Your task to perform on an android device: Empty the shopping cart on newegg.com. Search for usb-c to usb-b on newegg.com, select the first entry, and add it to the cart. Image 0: 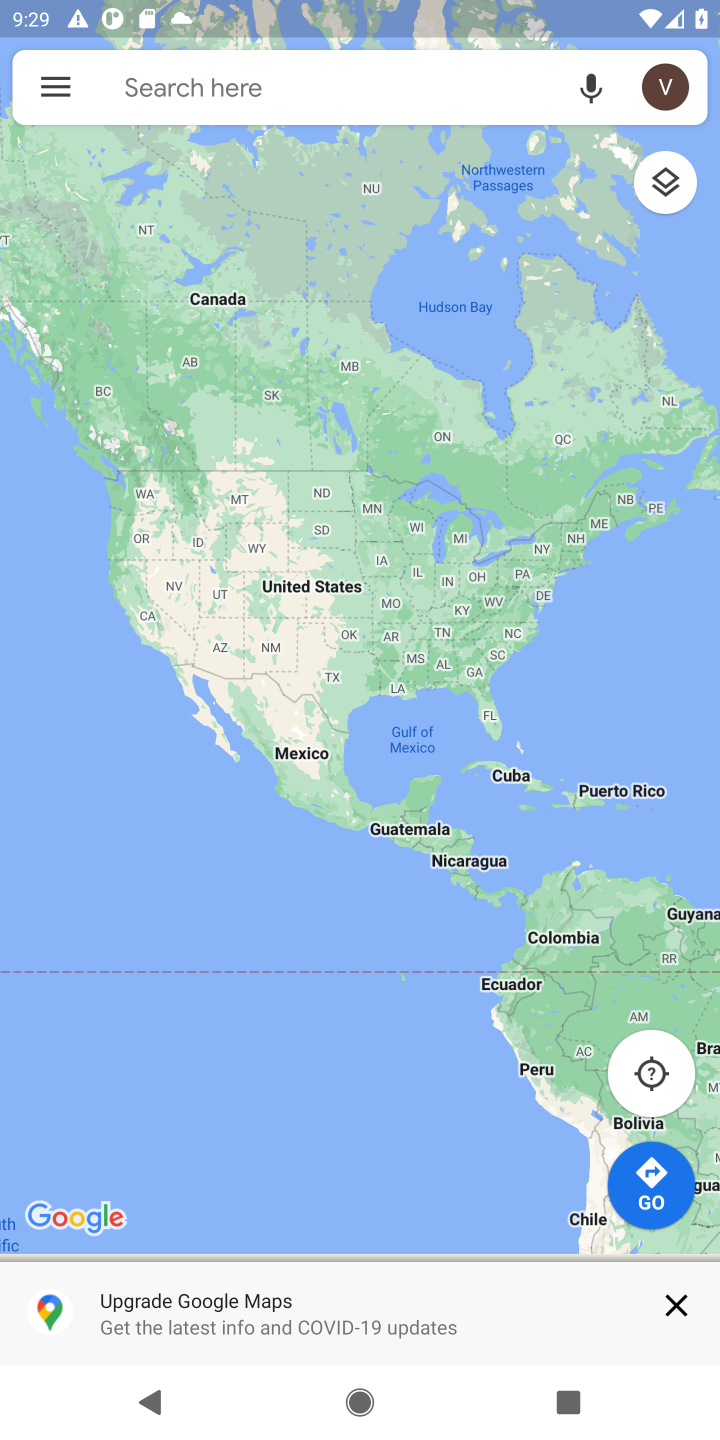
Step 0: press home button
Your task to perform on an android device: Empty the shopping cart on newegg.com. Search for usb-c to usb-b on newegg.com, select the first entry, and add it to the cart. Image 1: 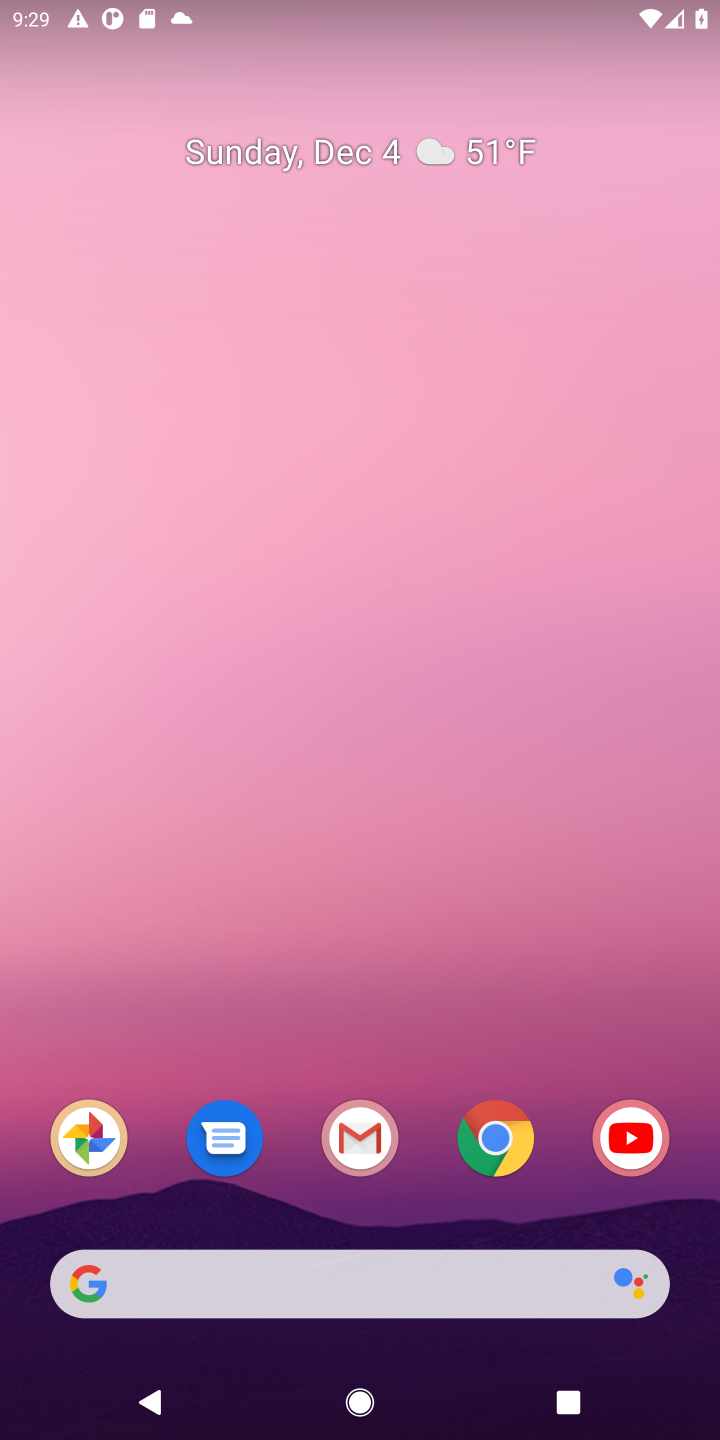
Step 1: click (484, 1138)
Your task to perform on an android device: Empty the shopping cart on newegg.com. Search for usb-c to usb-b on newegg.com, select the first entry, and add it to the cart. Image 2: 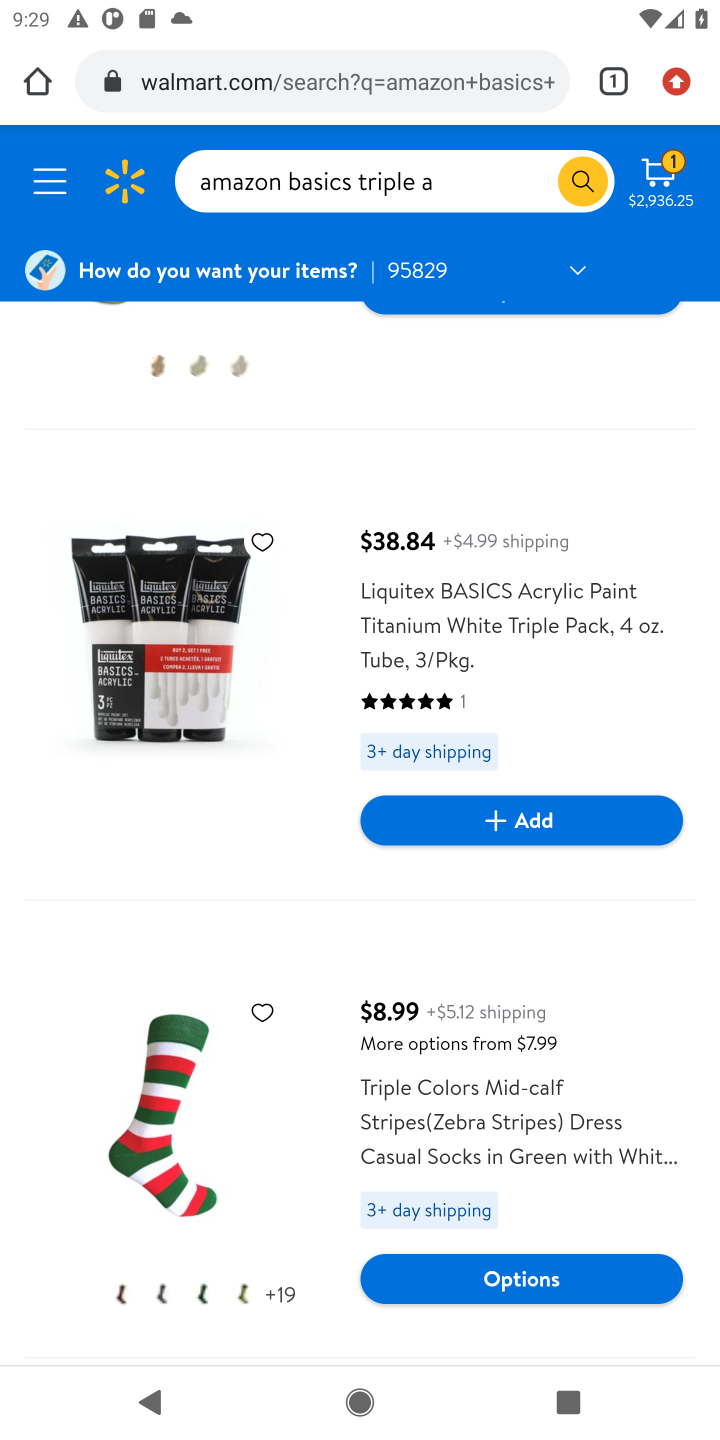
Step 2: click (376, 88)
Your task to perform on an android device: Empty the shopping cart on newegg.com. Search for usb-c to usb-b on newegg.com, select the first entry, and add it to the cart. Image 3: 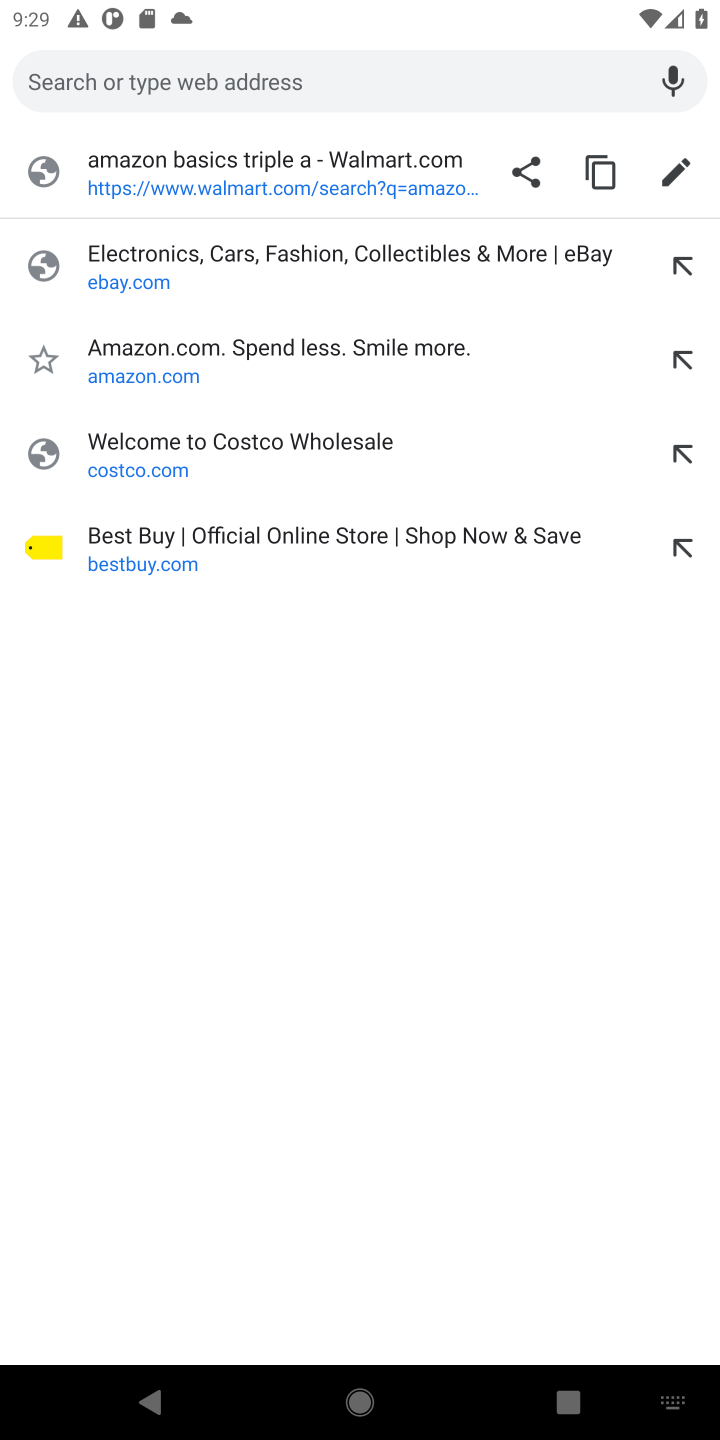
Step 3: type "newegg.com"
Your task to perform on an android device: Empty the shopping cart on newegg.com. Search for usb-c to usb-b on newegg.com, select the first entry, and add it to the cart. Image 4: 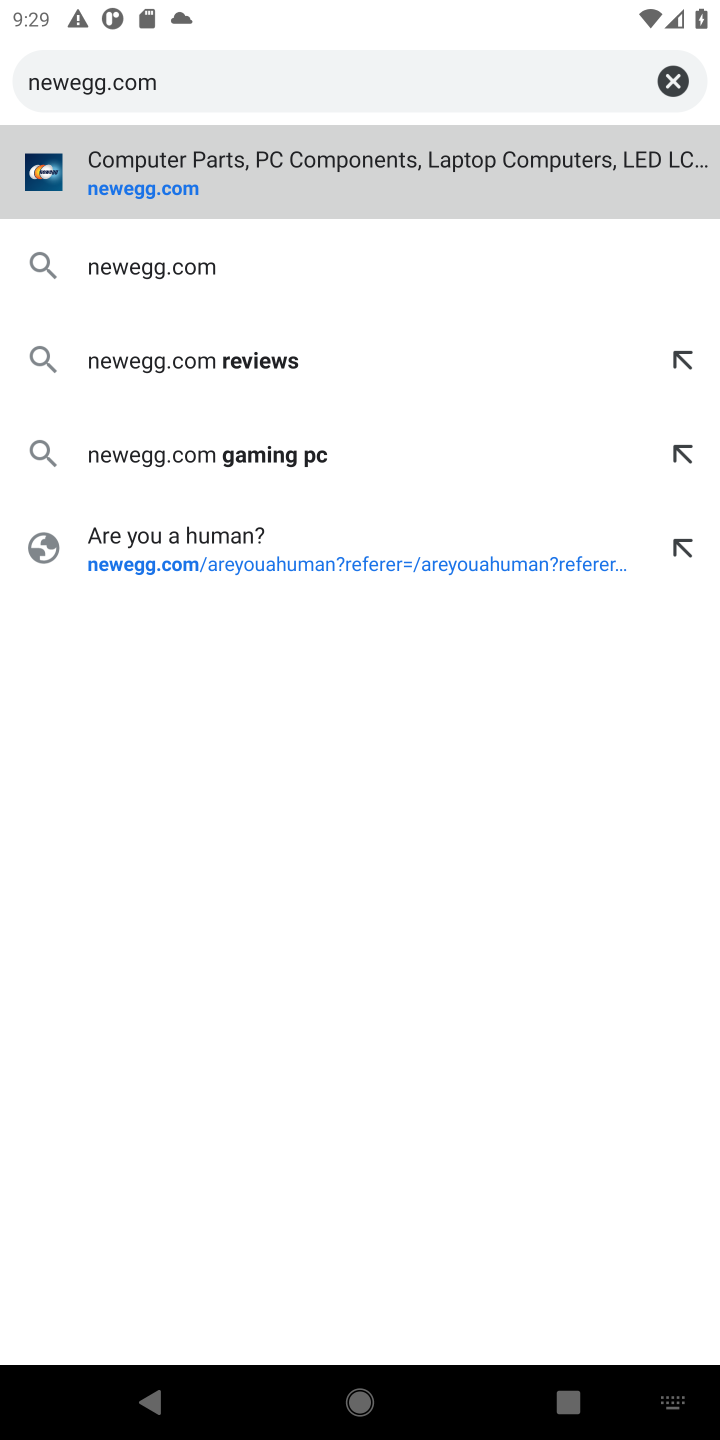
Step 4: press enter
Your task to perform on an android device: Empty the shopping cart on newegg.com. Search for usb-c to usb-b on newegg.com, select the first entry, and add it to the cart. Image 5: 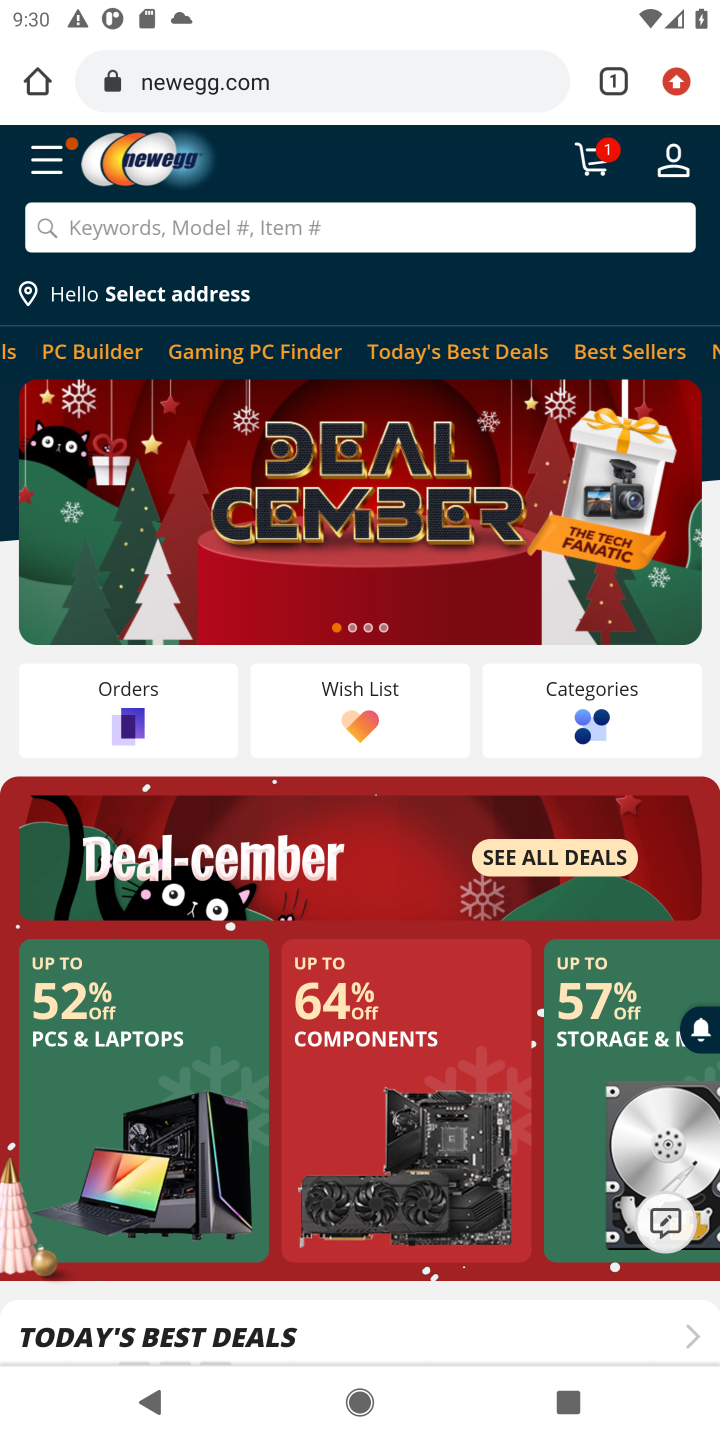
Step 5: click (592, 160)
Your task to perform on an android device: Empty the shopping cart on newegg.com. Search for usb-c to usb-b on newegg.com, select the first entry, and add it to the cart. Image 6: 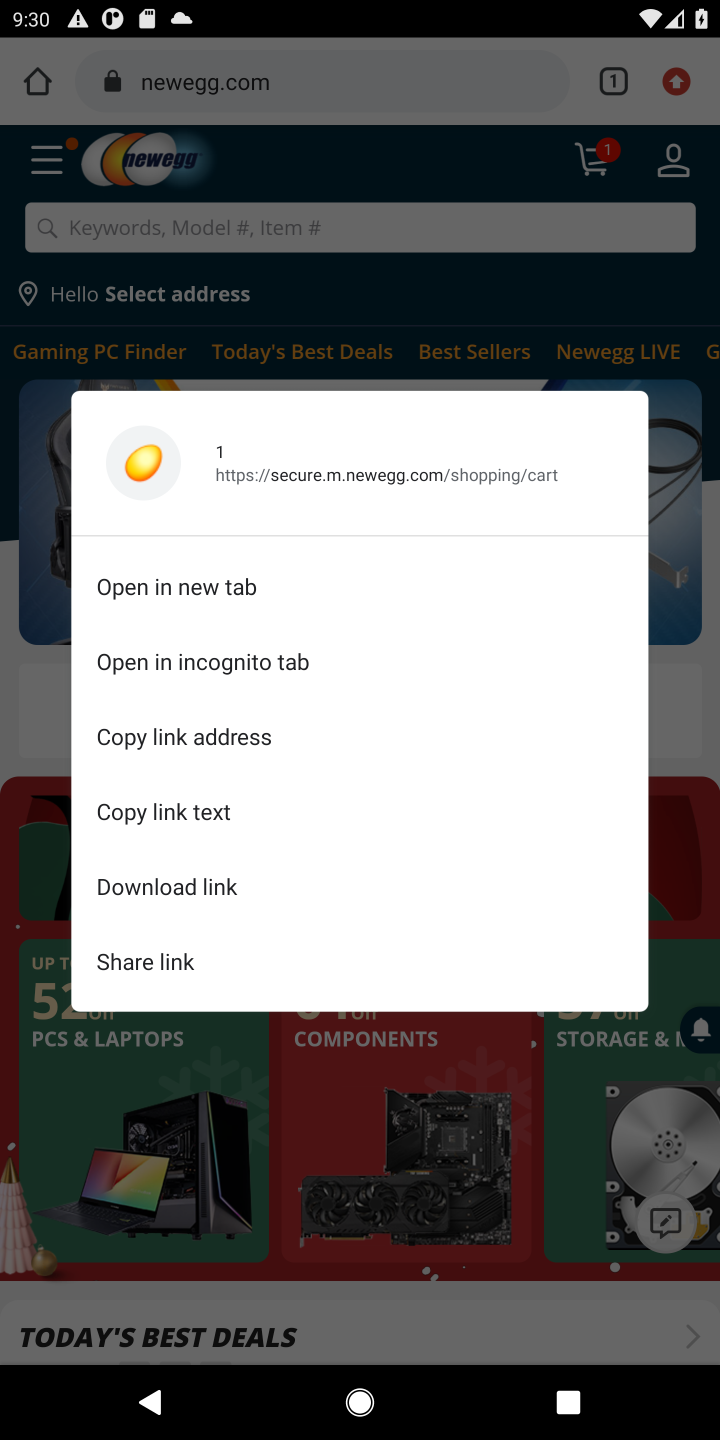
Step 6: click (481, 179)
Your task to perform on an android device: Empty the shopping cart on newegg.com. Search for usb-c to usb-b on newegg.com, select the first entry, and add it to the cart. Image 7: 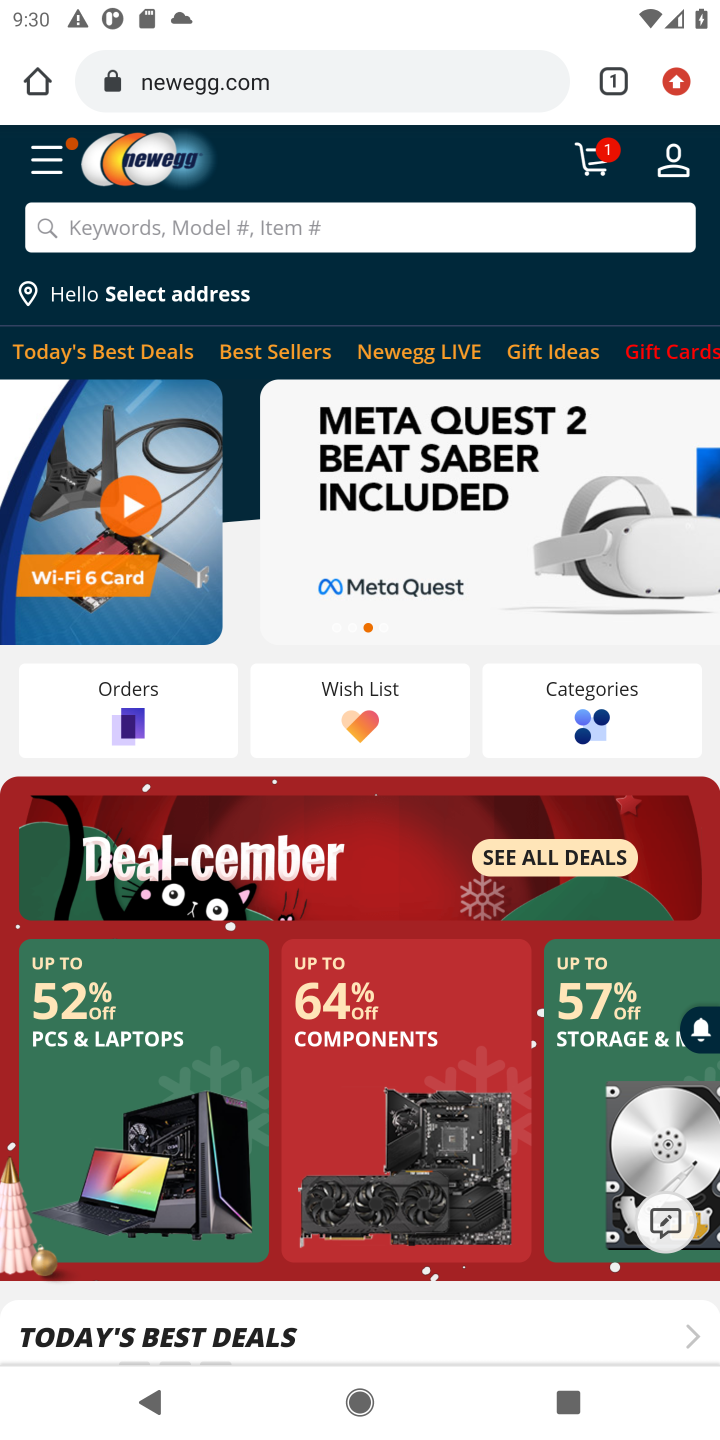
Step 7: click (587, 167)
Your task to perform on an android device: Empty the shopping cart on newegg.com. Search for usb-c to usb-b on newegg.com, select the first entry, and add it to the cart. Image 8: 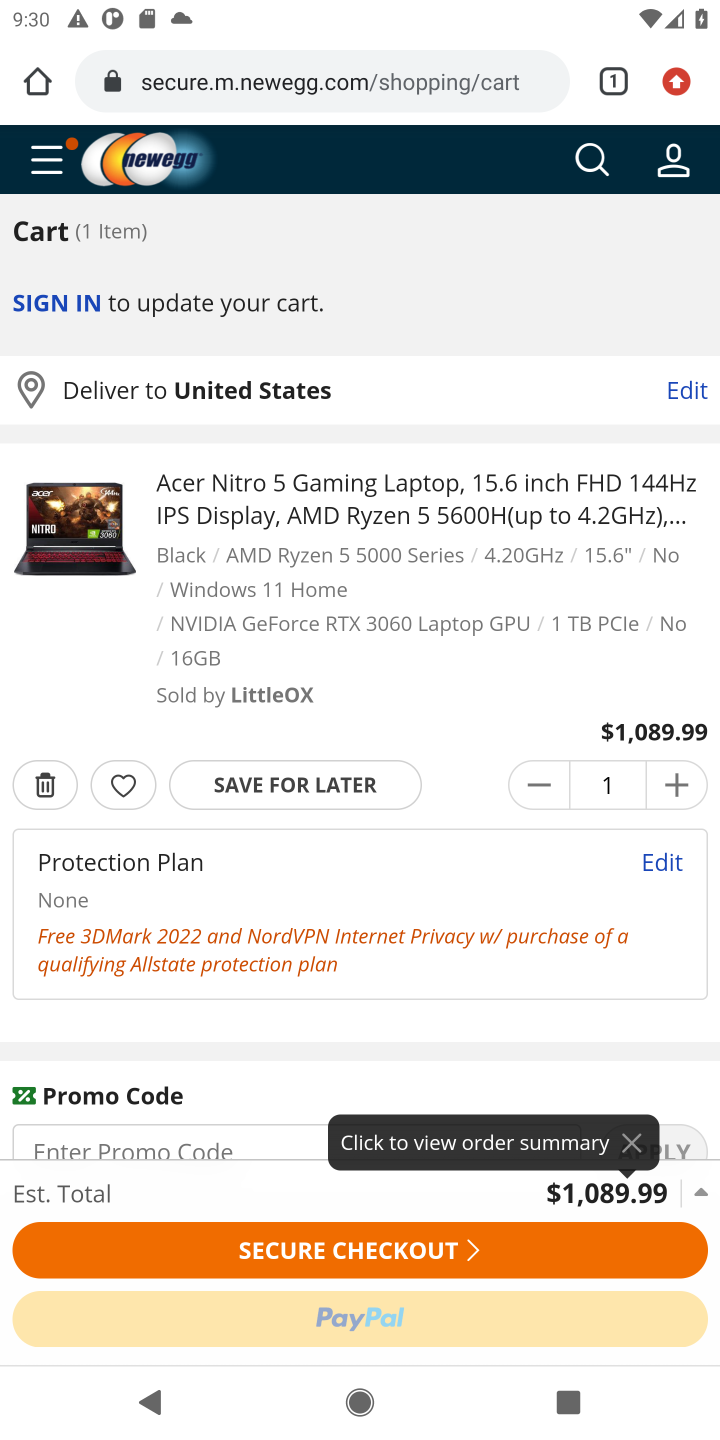
Step 8: click (48, 783)
Your task to perform on an android device: Empty the shopping cart on newegg.com. Search for usb-c to usb-b on newegg.com, select the first entry, and add it to the cart. Image 9: 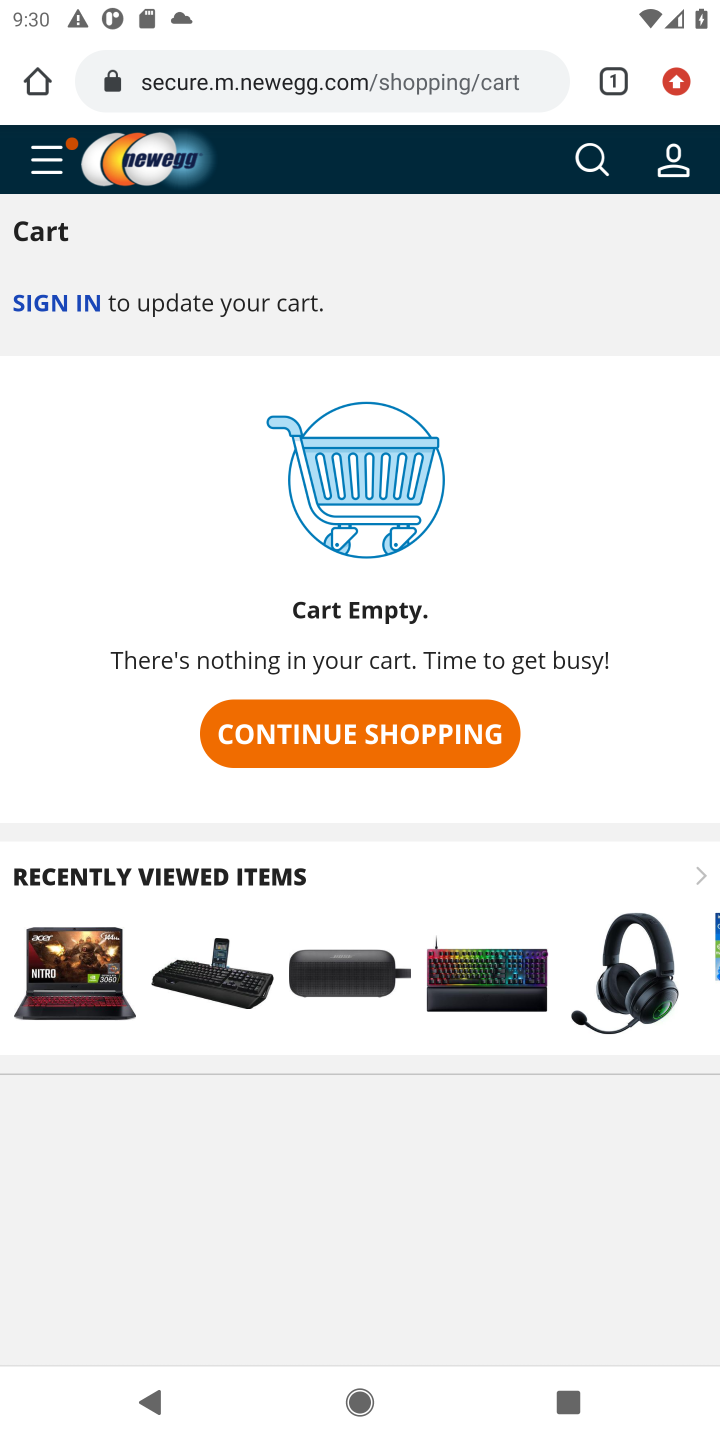
Step 9: click (584, 146)
Your task to perform on an android device: Empty the shopping cart on newegg.com. Search for usb-c to usb-b on newegg.com, select the first entry, and add it to the cart. Image 10: 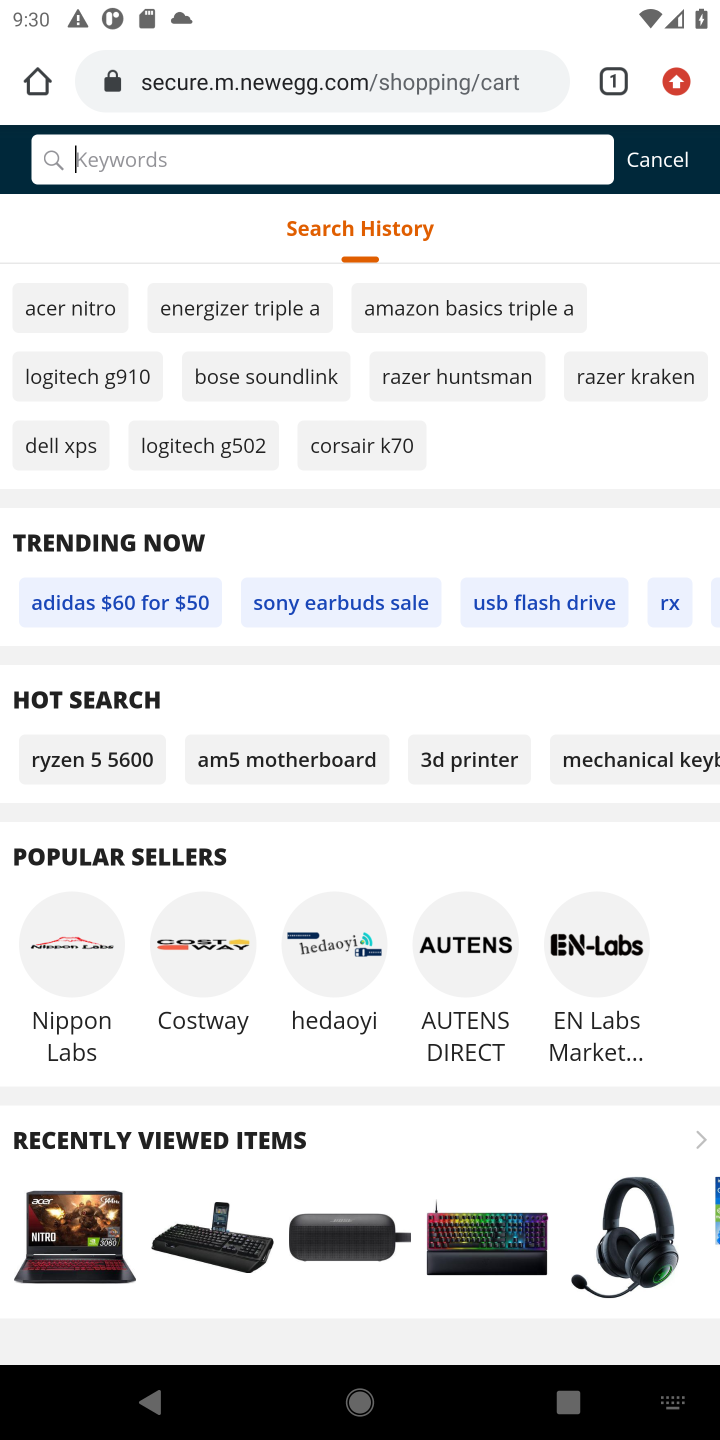
Step 10: press enter
Your task to perform on an android device: Empty the shopping cart on newegg.com. Search for usb-c to usb-b on newegg.com, select the first entry, and add it to the cart. Image 11: 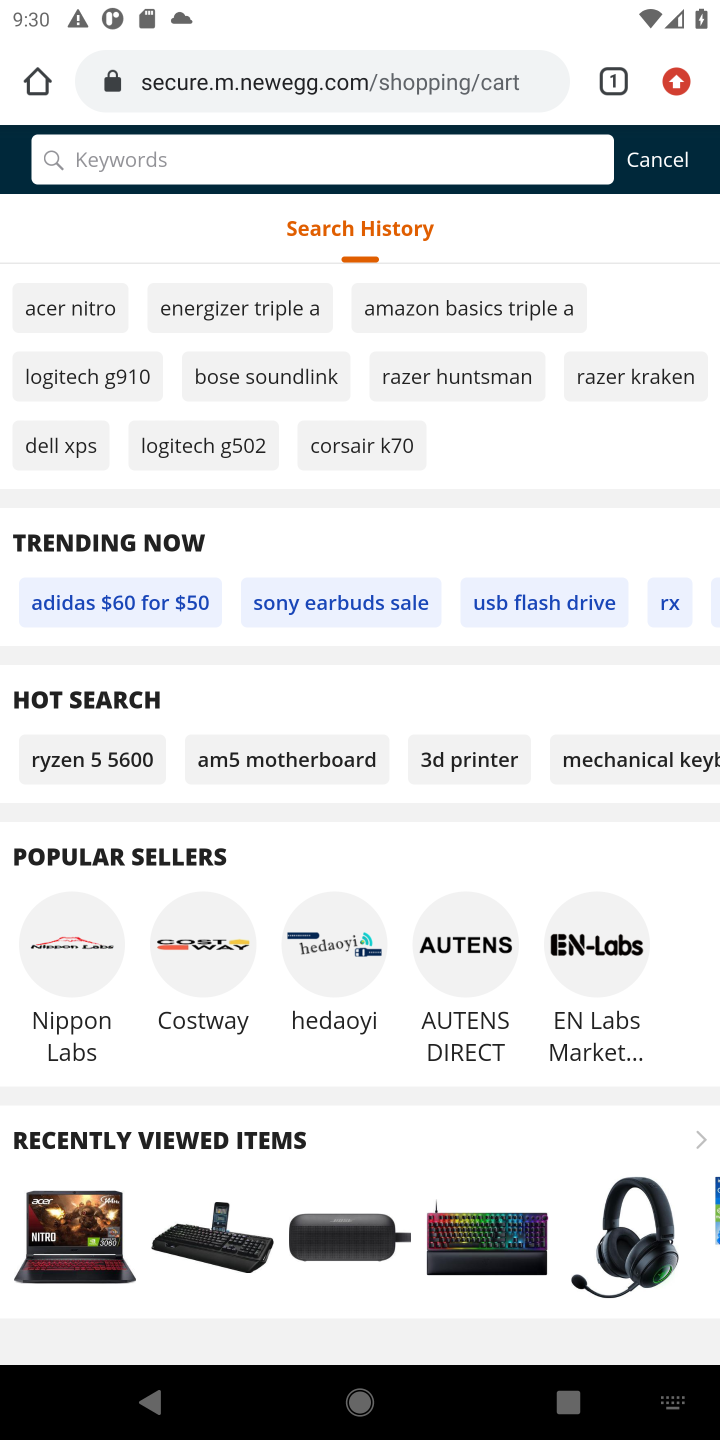
Step 11: type "usb-c to usb-b"
Your task to perform on an android device: Empty the shopping cart on newegg.com. Search for usb-c to usb-b on newegg.com, select the first entry, and add it to the cart. Image 12: 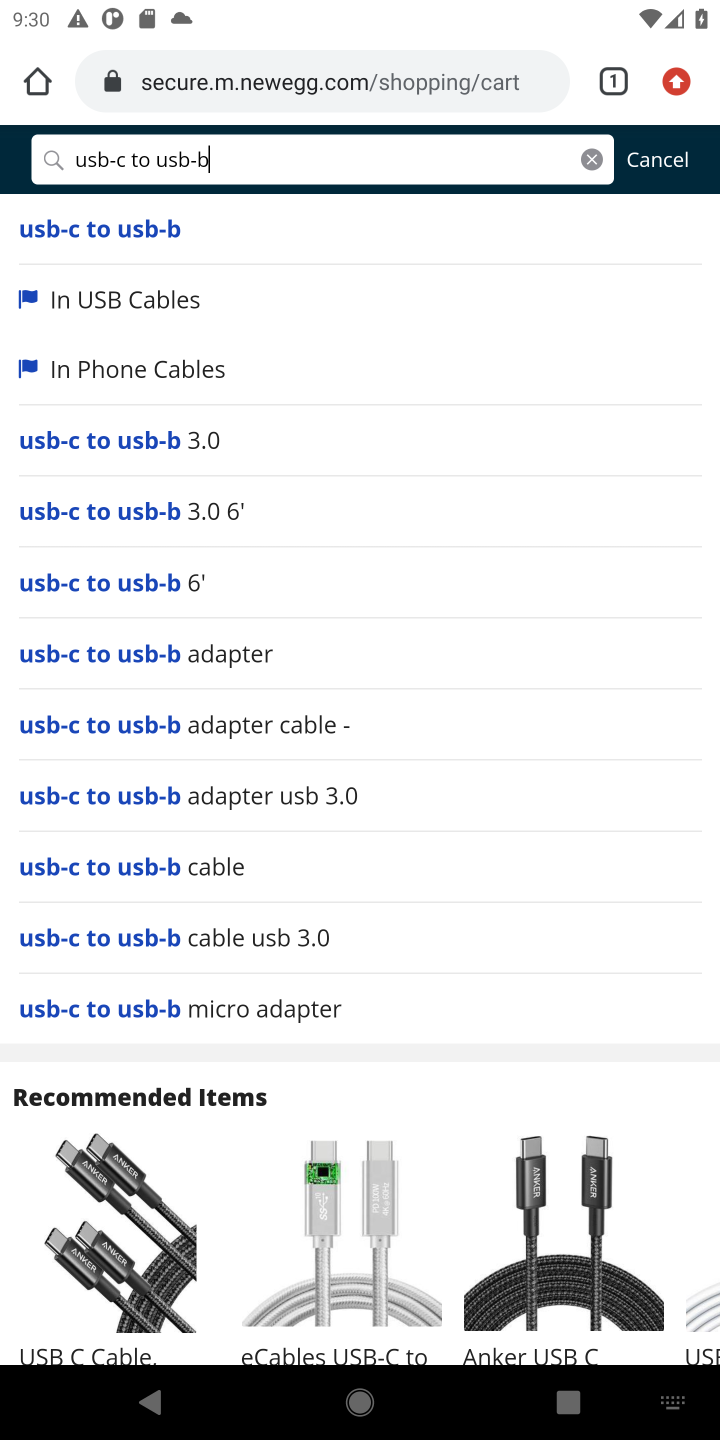
Step 12: click (153, 225)
Your task to perform on an android device: Empty the shopping cart on newegg.com. Search for usb-c to usb-b on newegg.com, select the first entry, and add it to the cart. Image 13: 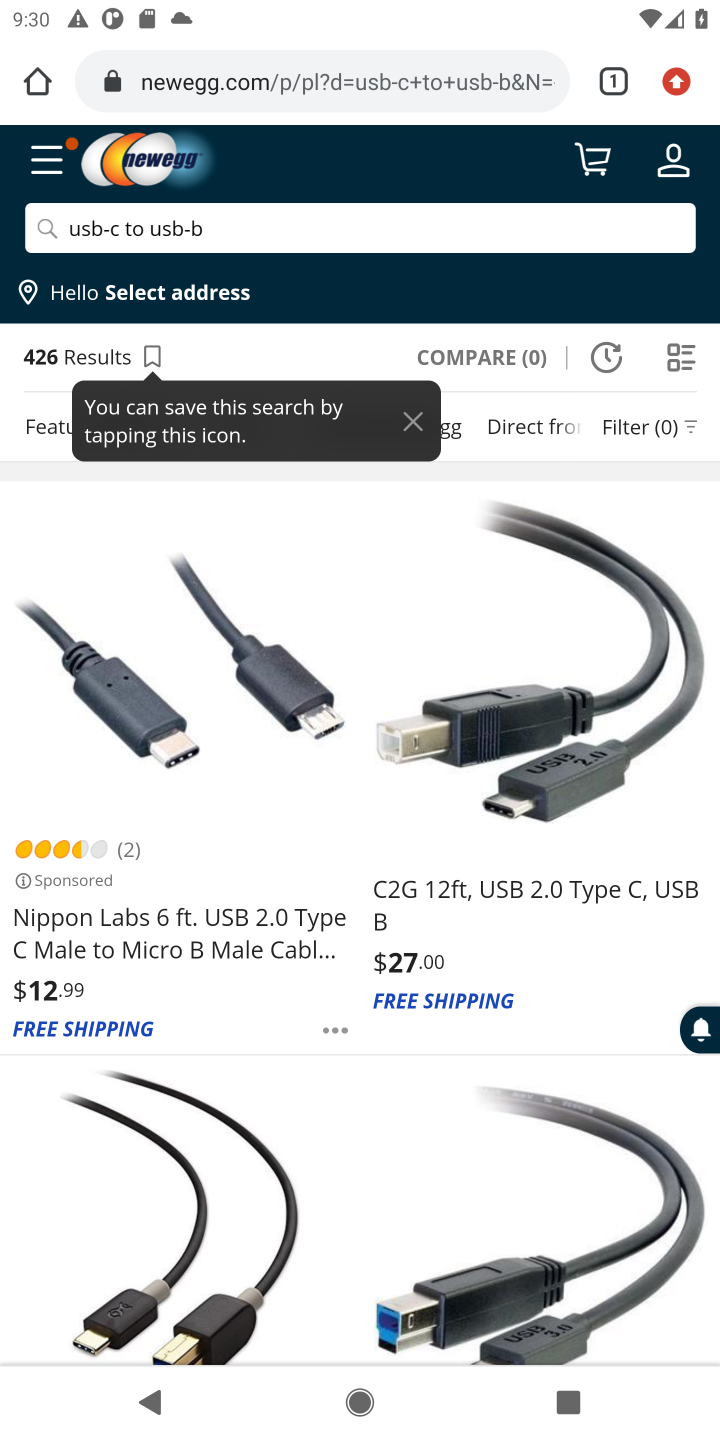
Step 13: click (462, 741)
Your task to perform on an android device: Empty the shopping cart on newegg.com. Search for usb-c to usb-b on newegg.com, select the first entry, and add it to the cart. Image 14: 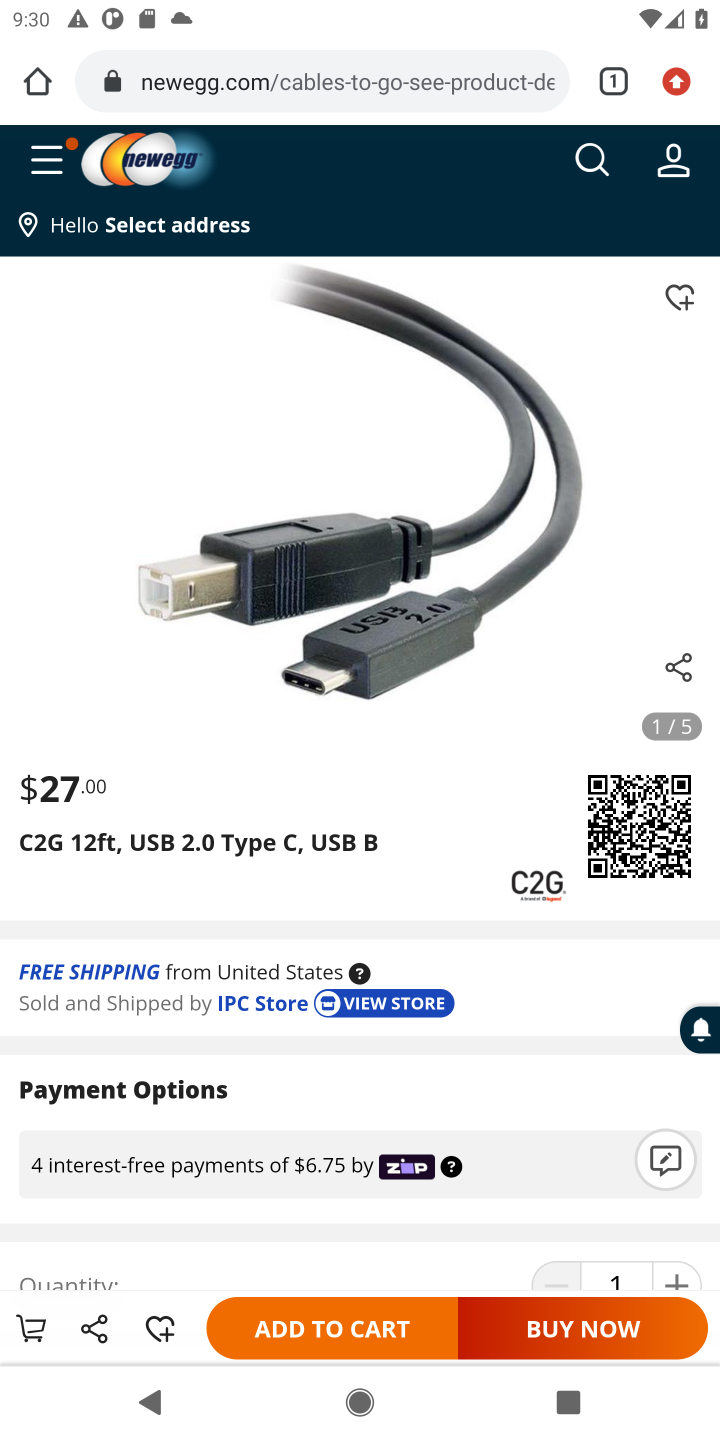
Step 14: click (339, 1311)
Your task to perform on an android device: Empty the shopping cart on newegg.com. Search for usb-c to usb-b on newegg.com, select the first entry, and add it to the cart. Image 15: 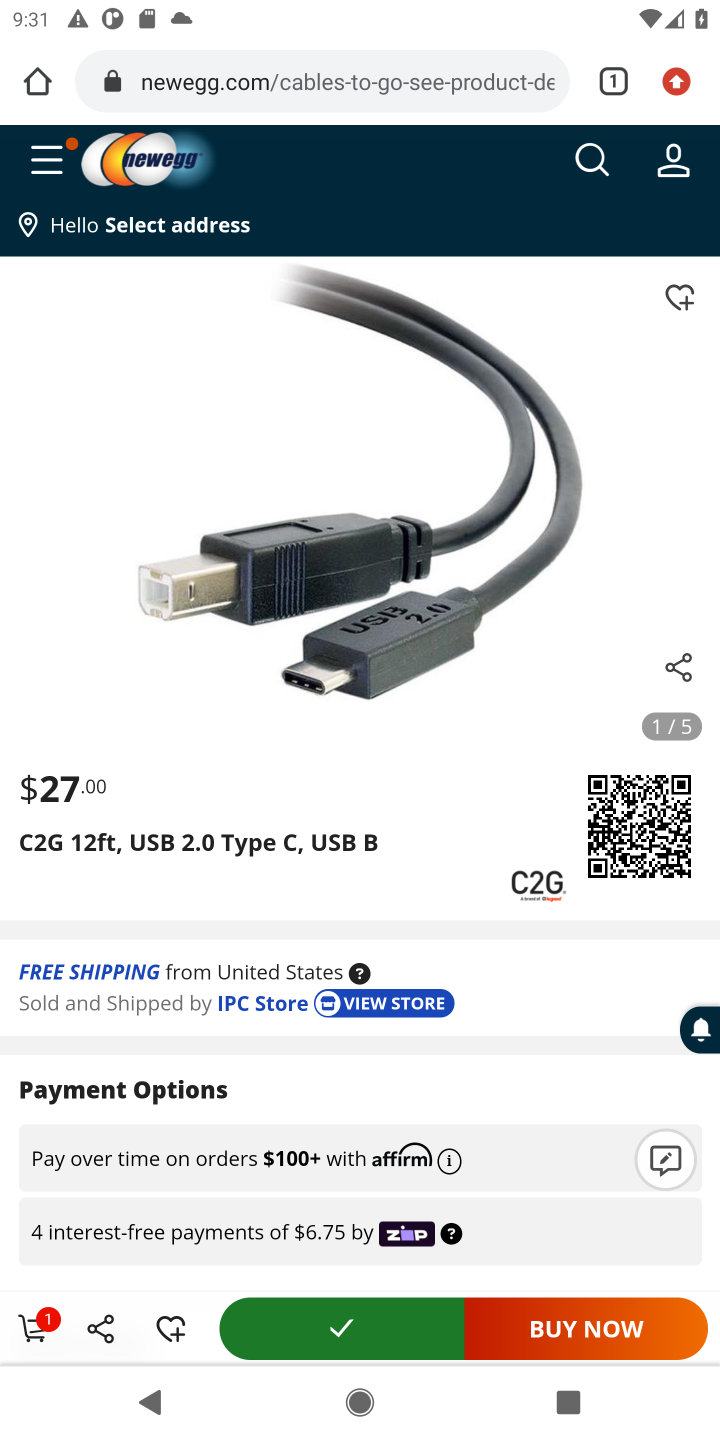
Step 15: task complete